Your task to perform on an android device: Go to eBay Image 0: 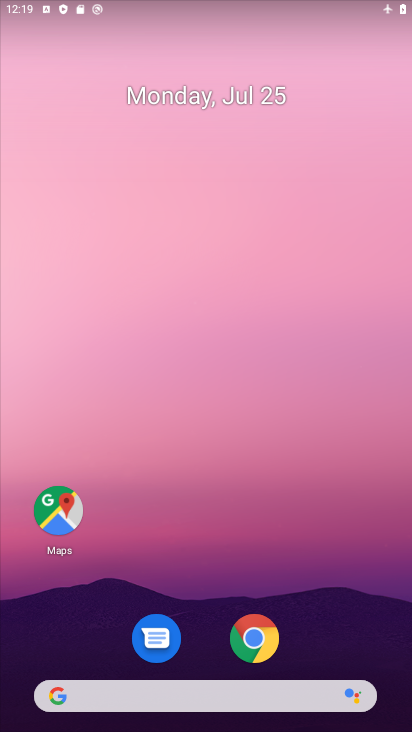
Step 0: click (255, 638)
Your task to perform on an android device: Go to eBay Image 1: 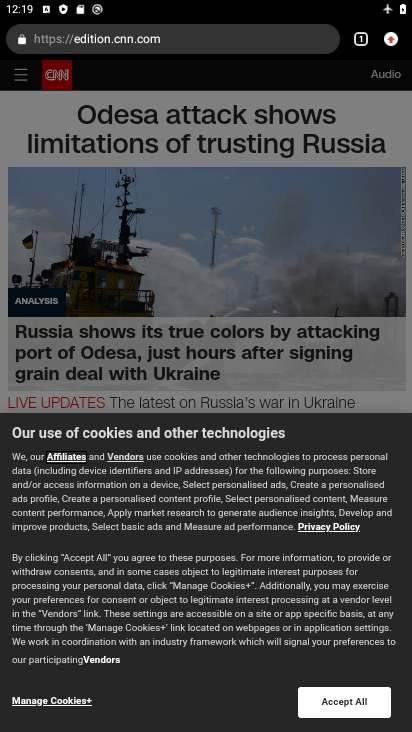
Step 1: click (365, 40)
Your task to perform on an android device: Go to eBay Image 2: 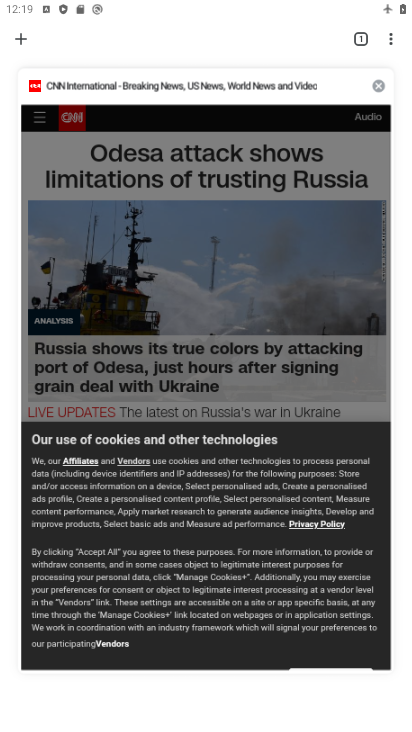
Step 2: drag from (278, 12) to (293, 507)
Your task to perform on an android device: Go to eBay Image 3: 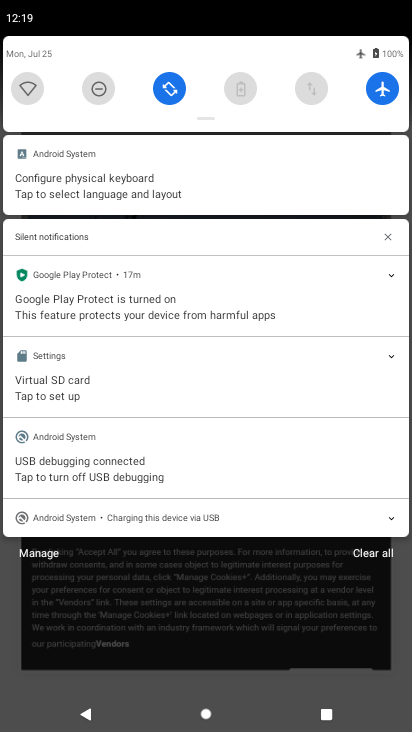
Step 3: click (387, 102)
Your task to perform on an android device: Go to eBay Image 4: 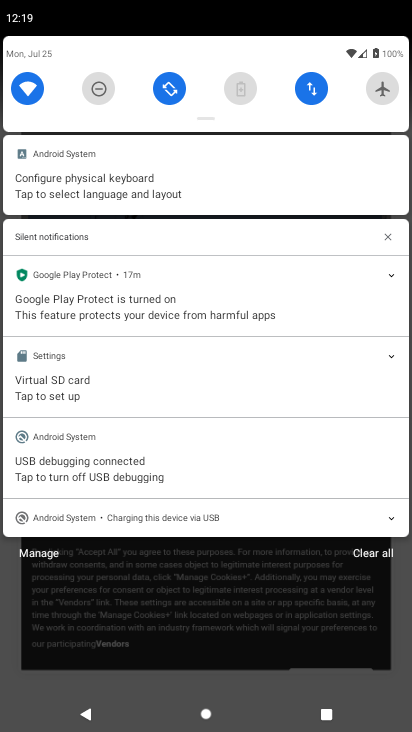
Step 4: click (197, 605)
Your task to perform on an android device: Go to eBay Image 5: 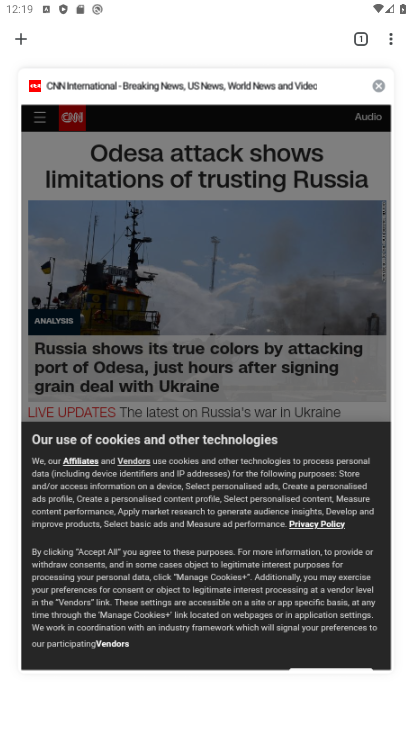
Step 5: click (17, 43)
Your task to perform on an android device: Go to eBay Image 6: 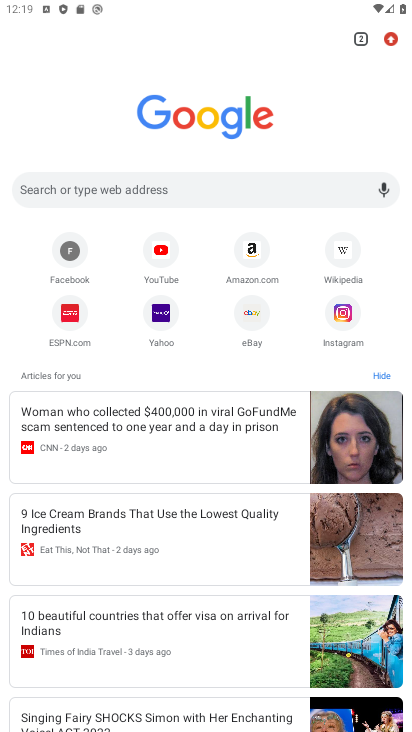
Step 6: click (233, 321)
Your task to perform on an android device: Go to eBay Image 7: 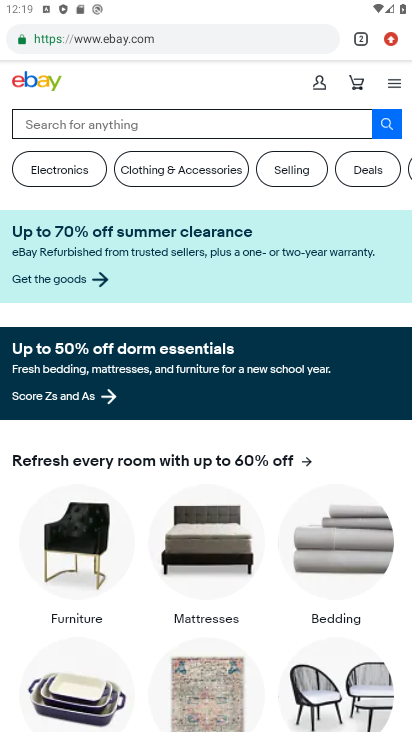
Step 7: task complete